Your task to perform on an android device: manage bookmarks in the chrome app Image 0: 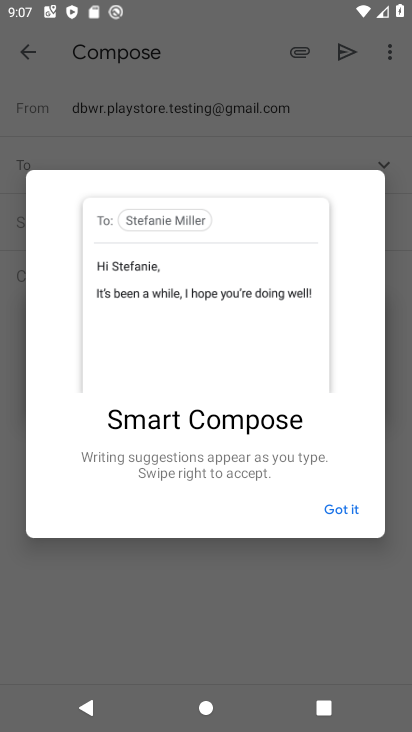
Step 0: press home button
Your task to perform on an android device: manage bookmarks in the chrome app Image 1: 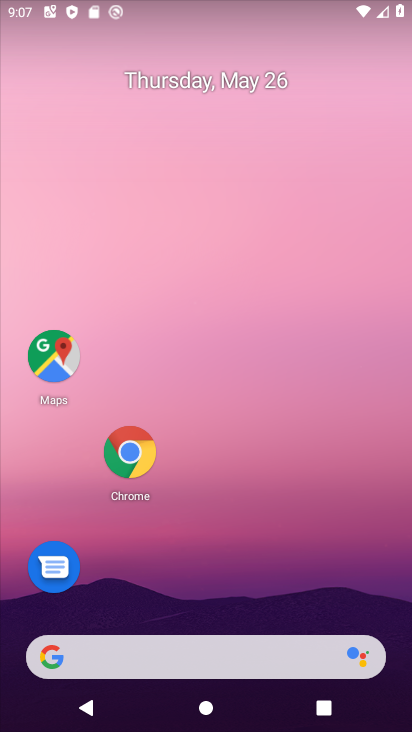
Step 1: click (141, 465)
Your task to perform on an android device: manage bookmarks in the chrome app Image 2: 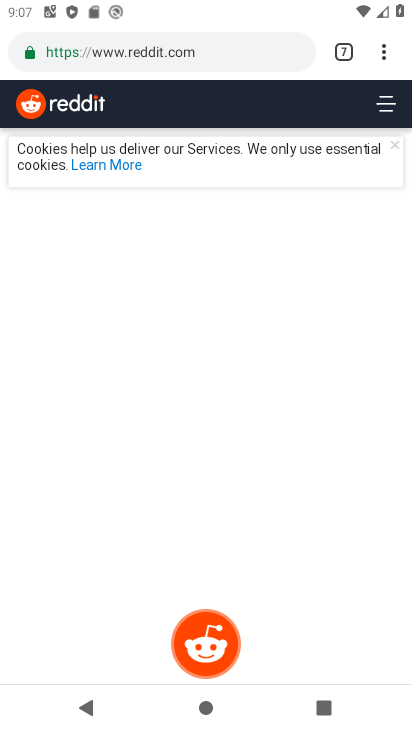
Step 2: drag from (379, 60) to (220, 201)
Your task to perform on an android device: manage bookmarks in the chrome app Image 3: 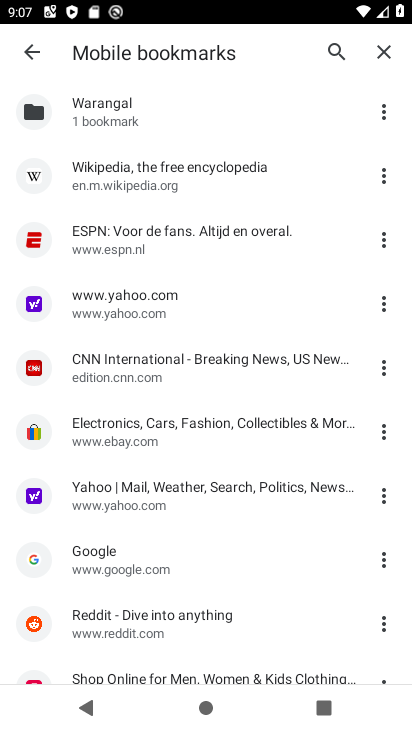
Step 3: click (383, 180)
Your task to perform on an android device: manage bookmarks in the chrome app Image 4: 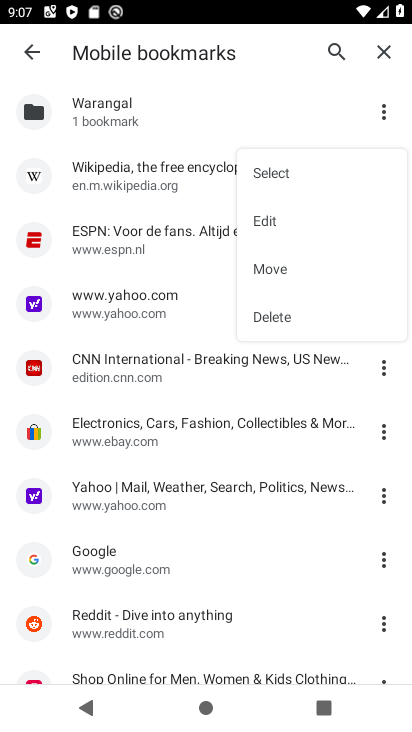
Step 4: click (274, 276)
Your task to perform on an android device: manage bookmarks in the chrome app Image 5: 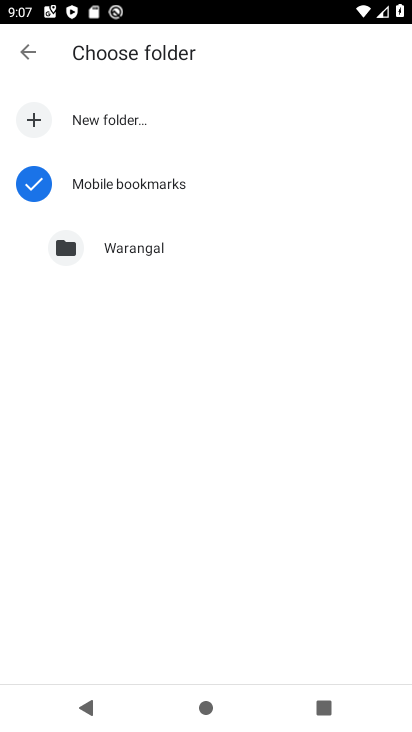
Step 5: click (109, 244)
Your task to perform on an android device: manage bookmarks in the chrome app Image 6: 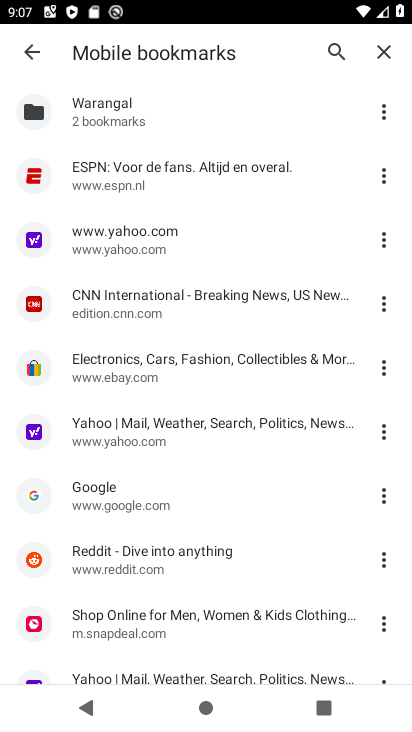
Step 6: task complete